Your task to perform on an android device: open device folders in google photos Image 0: 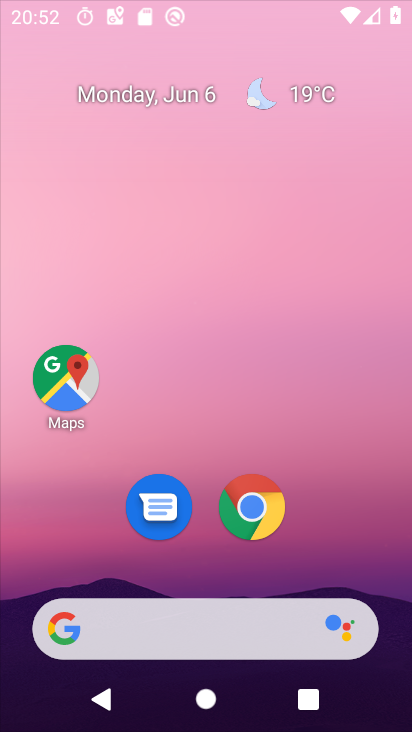
Step 0: press home button
Your task to perform on an android device: open device folders in google photos Image 1: 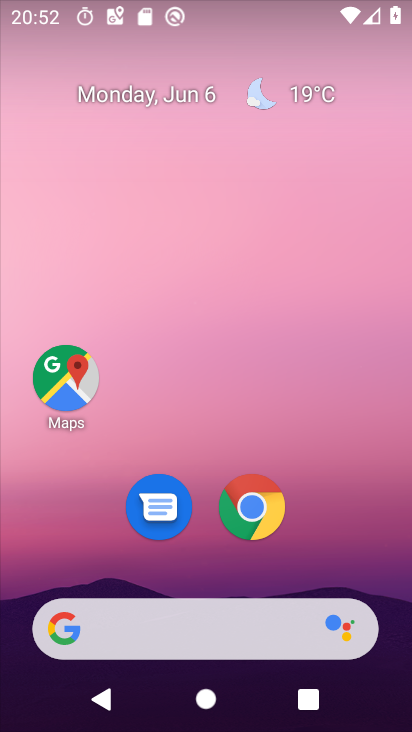
Step 1: drag from (320, 599) to (297, 36)
Your task to perform on an android device: open device folders in google photos Image 2: 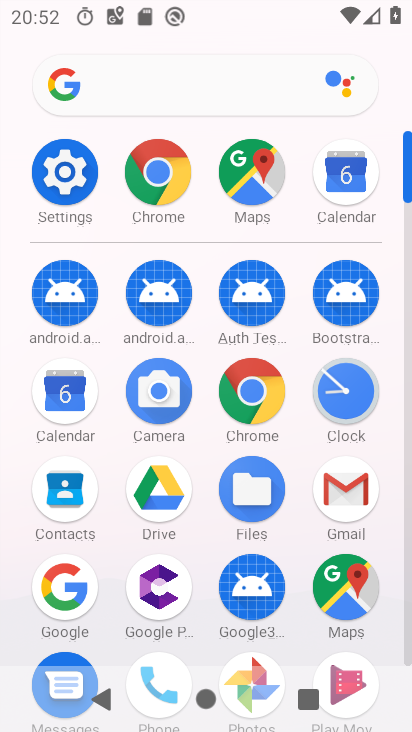
Step 2: click (405, 587)
Your task to perform on an android device: open device folders in google photos Image 3: 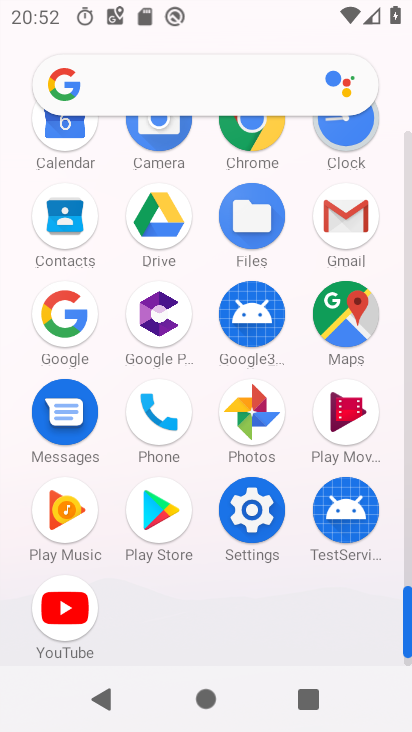
Step 3: click (230, 412)
Your task to perform on an android device: open device folders in google photos Image 4: 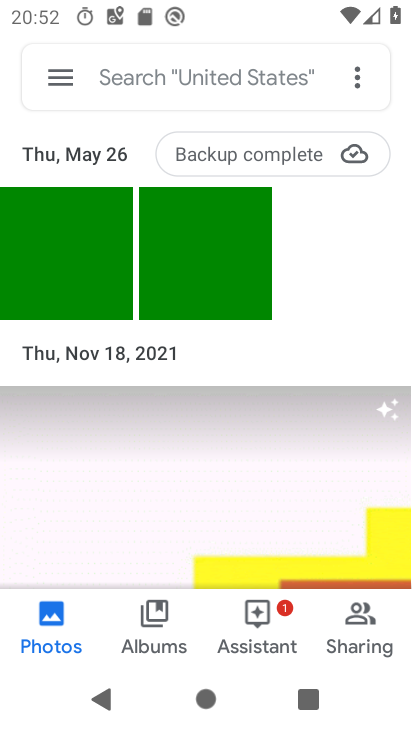
Step 4: click (63, 77)
Your task to perform on an android device: open device folders in google photos Image 5: 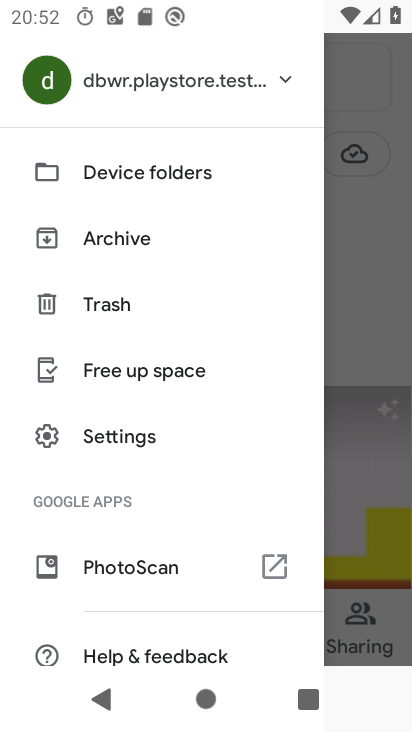
Step 5: click (107, 178)
Your task to perform on an android device: open device folders in google photos Image 6: 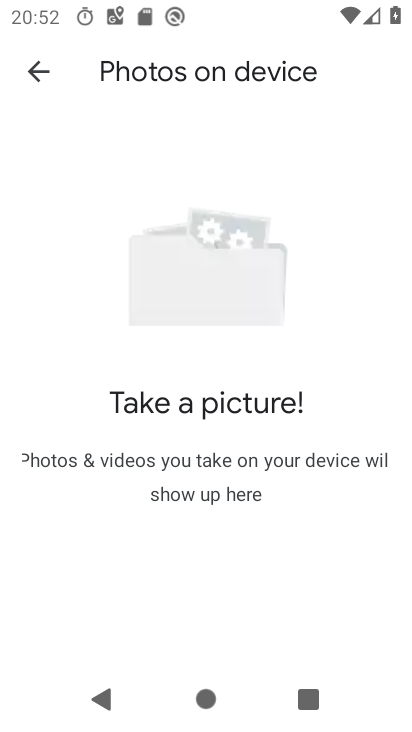
Step 6: task complete